Your task to perform on an android device: turn off location history Image 0: 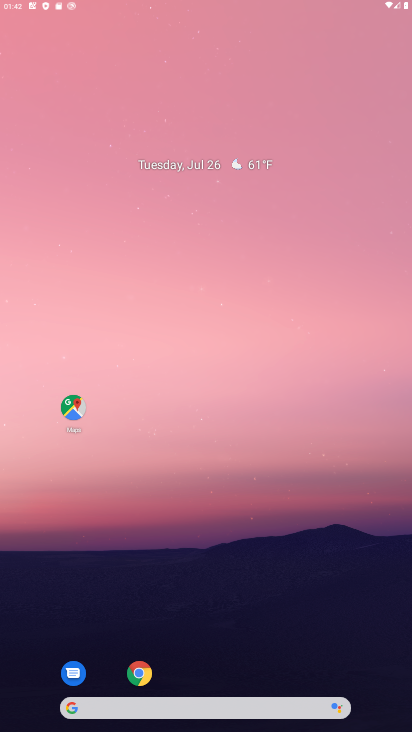
Step 0: press home button
Your task to perform on an android device: turn off location history Image 1: 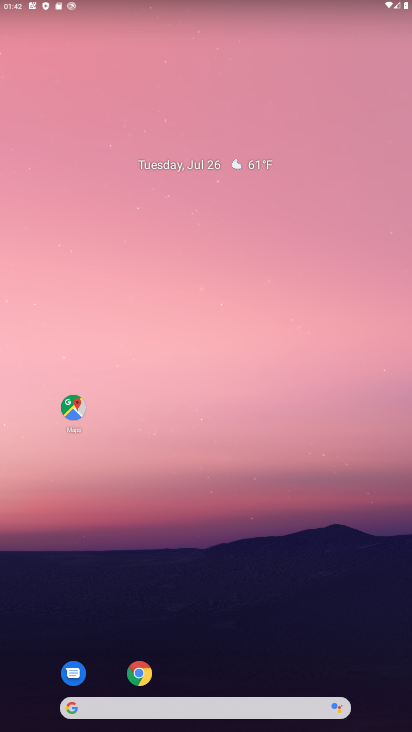
Step 1: drag from (239, 710) to (283, 176)
Your task to perform on an android device: turn off location history Image 2: 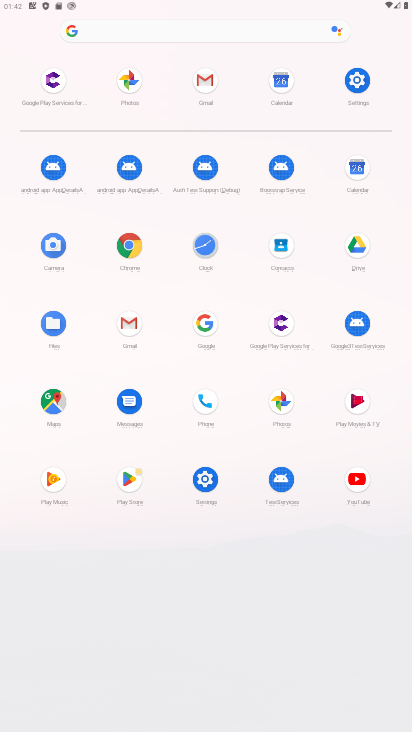
Step 2: click (362, 79)
Your task to perform on an android device: turn off location history Image 3: 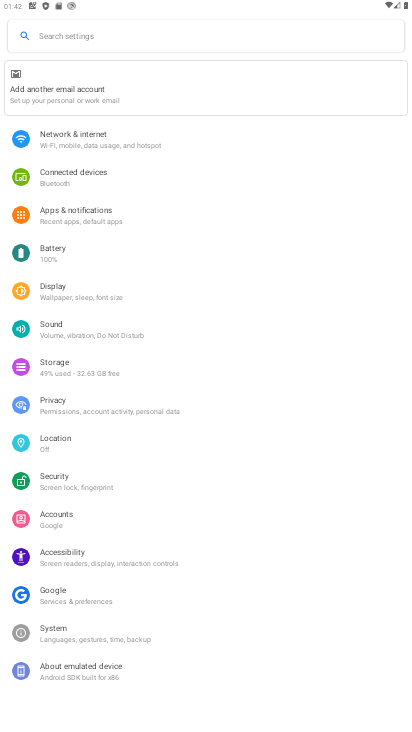
Step 3: click (55, 440)
Your task to perform on an android device: turn off location history Image 4: 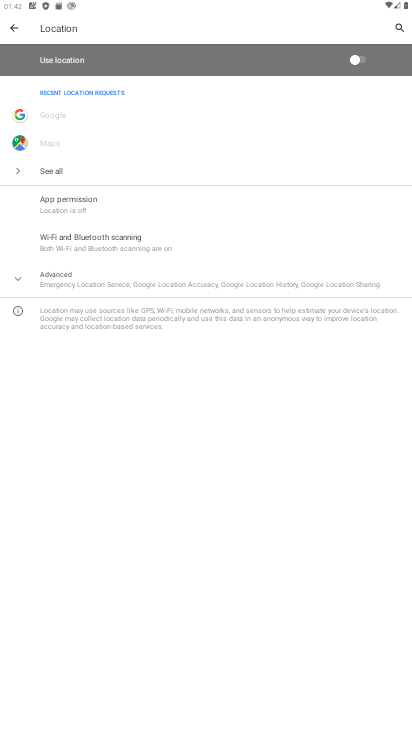
Step 4: click (98, 285)
Your task to perform on an android device: turn off location history Image 5: 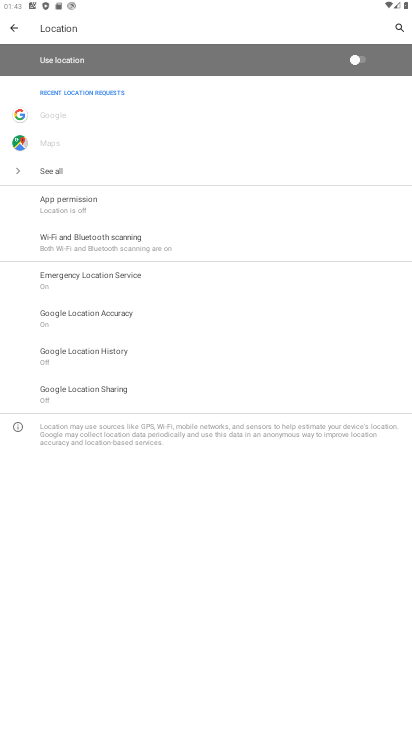
Step 5: click (89, 346)
Your task to perform on an android device: turn off location history Image 6: 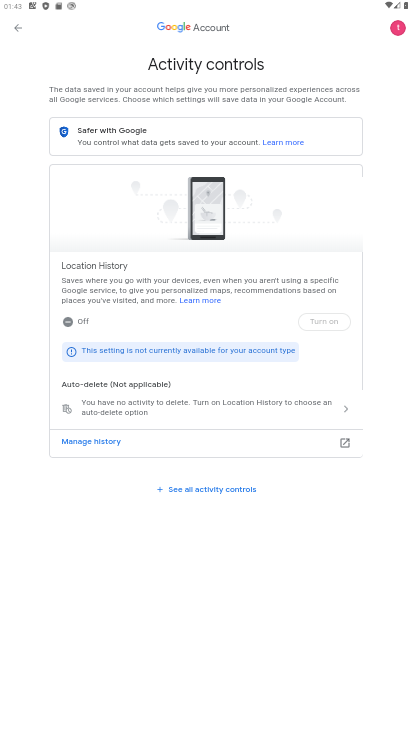
Step 6: task complete